Your task to perform on an android device: Check the weather Image 0: 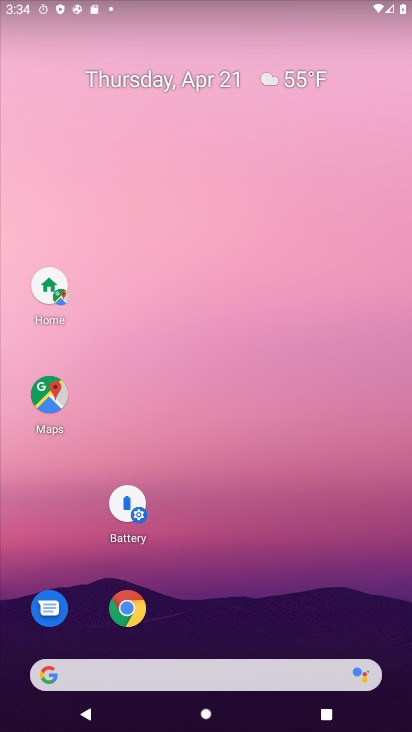
Step 0: drag from (287, 503) to (314, 40)
Your task to perform on an android device: Check the weather Image 1: 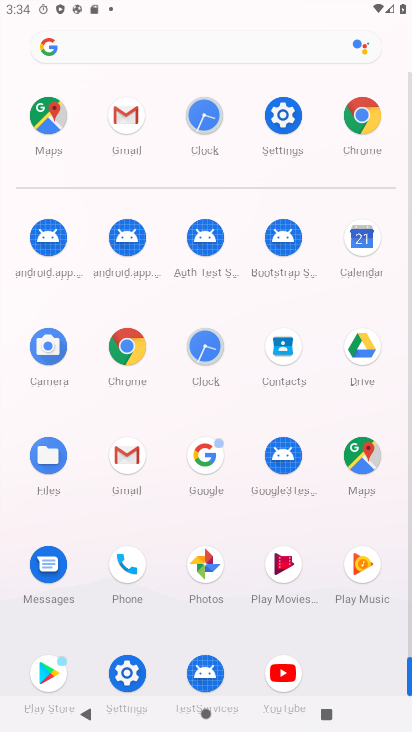
Step 1: press back button
Your task to perform on an android device: Check the weather Image 2: 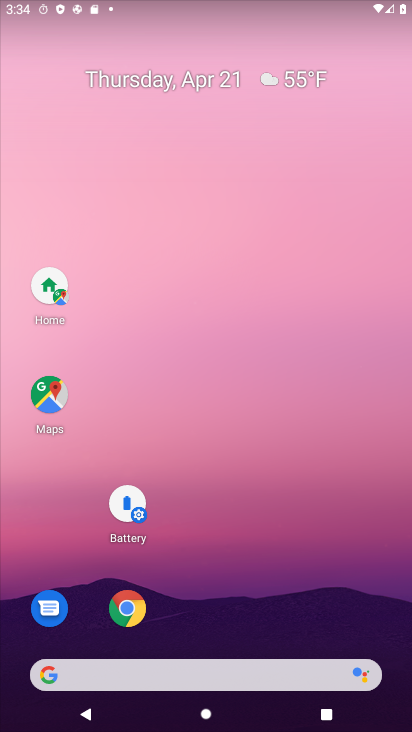
Step 2: drag from (35, 136) to (386, 96)
Your task to perform on an android device: Check the weather Image 3: 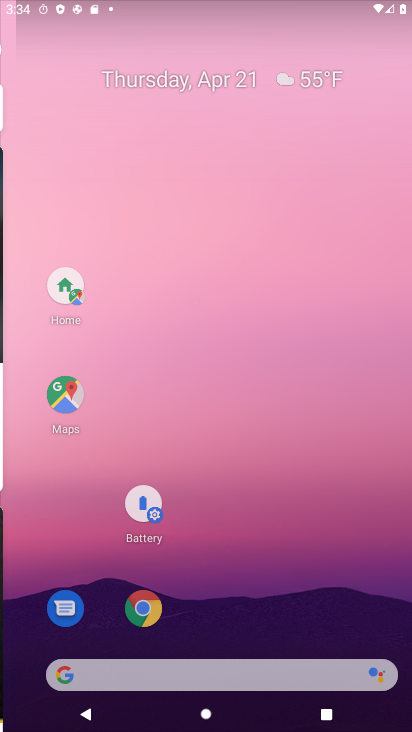
Step 3: drag from (8, 154) to (410, 159)
Your task to perform on an android device: Check the weather Image 4: 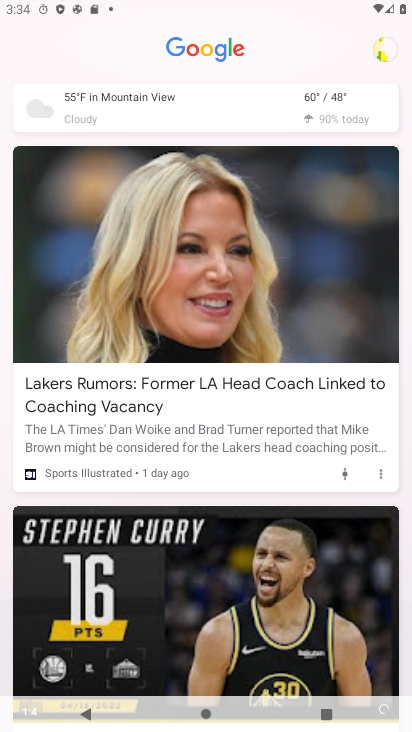
Step 4: click (278, 95)
Your task to perform on an android device: Check the weather Image 5: 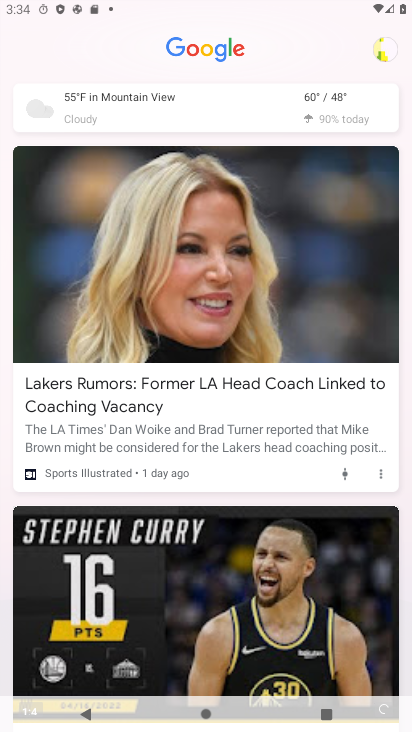
Step 5: click (305, 116)
Your task to perform on an android device: Check the weather Image 6: 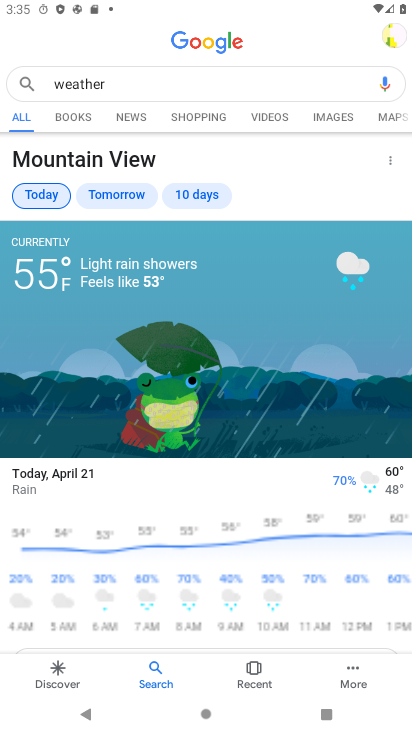
Step 6: task complete